Your task to perform on an android device: Go to settings Image 0: 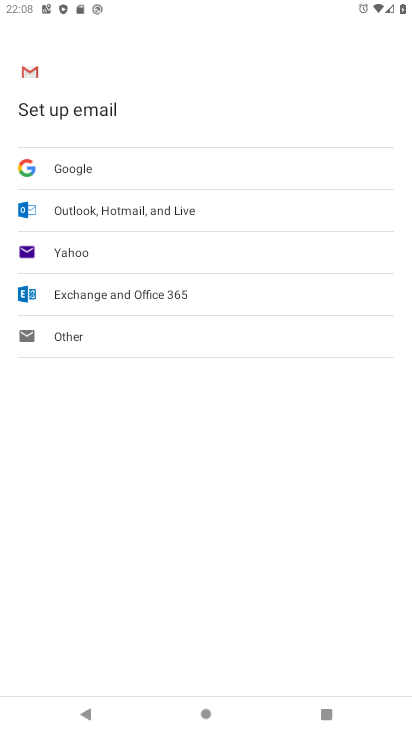
Step 0: press home button
Your task to perform on an android device: Go to settings Image 1: 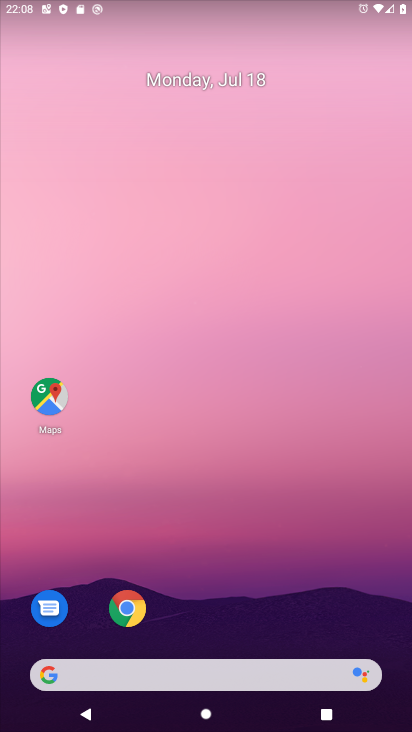
Step 1: drag from (44, 682) to (171, 271)
Your task to perform on an android device: Go to settings Image 2: 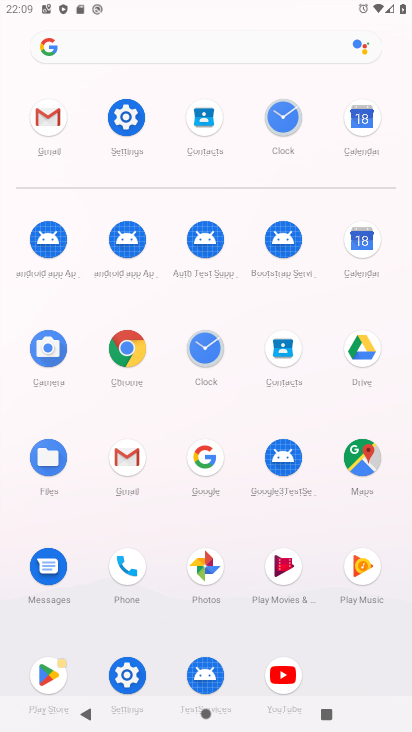
Step 2: click (123, 670)
Your task to perform on an android device: Go to settings Image 3: 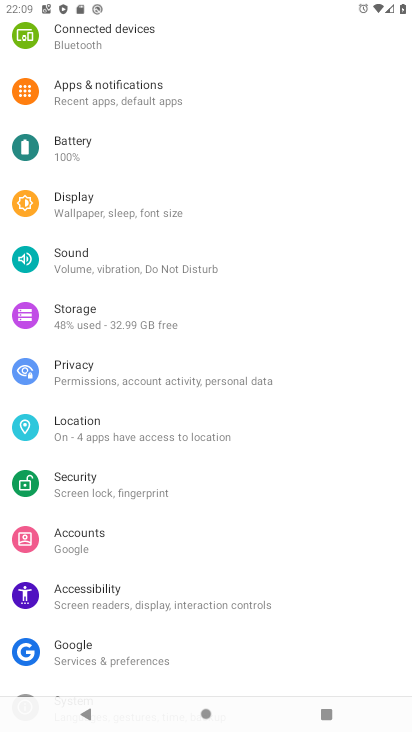
Step 3: task complete